Your task to perform on an android device: Open Google Chrome and open the bookmarks view Image 0: 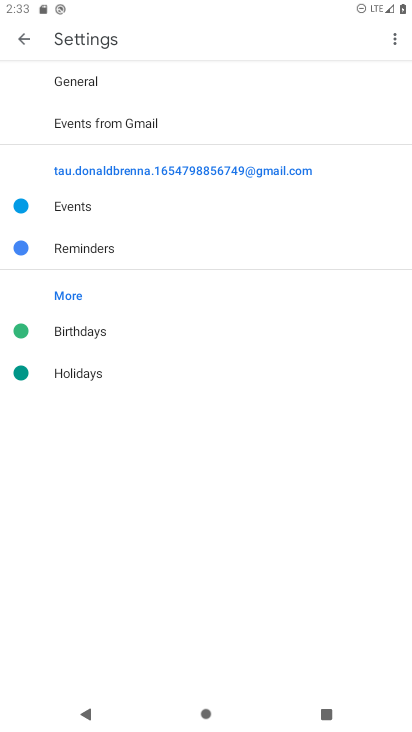
Step 0: drag from (237, 684) to (236, 229)
Your task to perform on an android device: Open Google Chrome and open the bookmarks view Image 1: 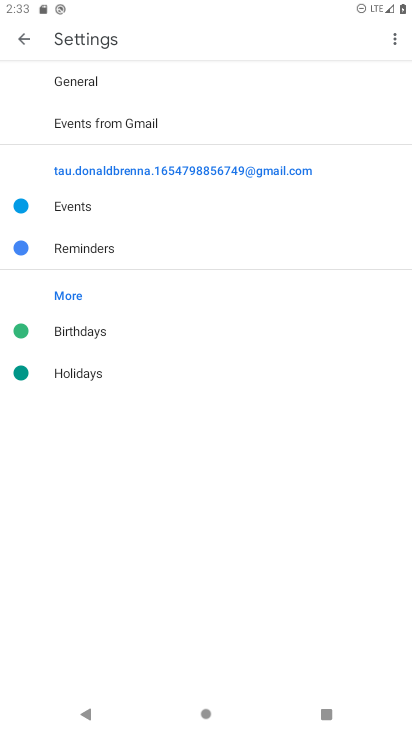
Step 1: press home button
Your task to perform on an android device: Open Google Chrome and open the bookmarks view Image 2: 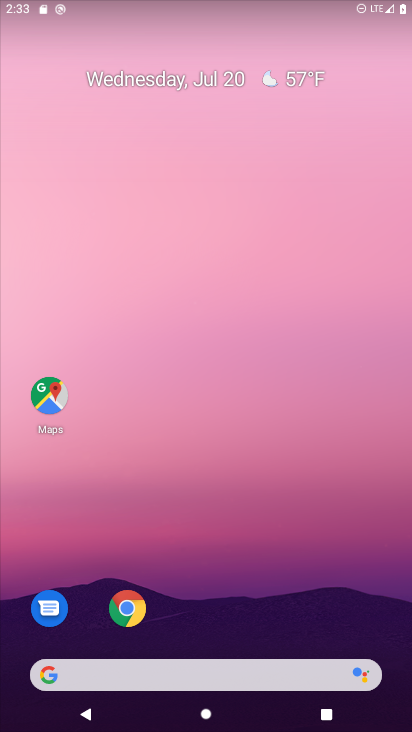
Step 2: click (130, 608)
Your task to perform on an android device: Open Google Chrome and open the bookmarks view Image 3: 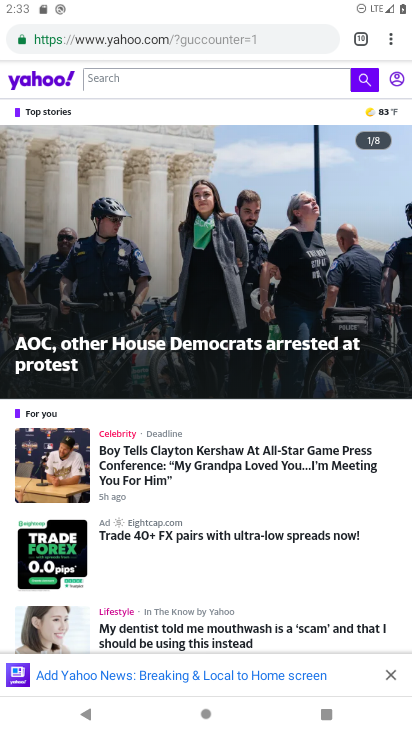
Step 3: click (392, 41)
Your task to perform on an android device: Open Google Chrome and open the bookmarks view Image 4: 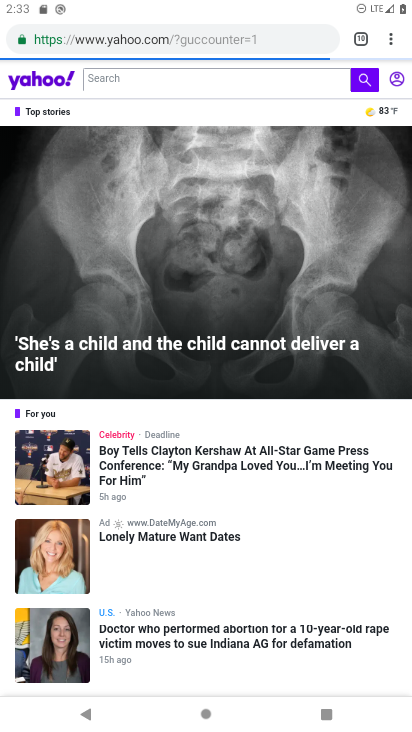
Step 4: click (392, 41)
Your task to perform on an android device: Open Google Chrome and open the bookmarks view Image 5: 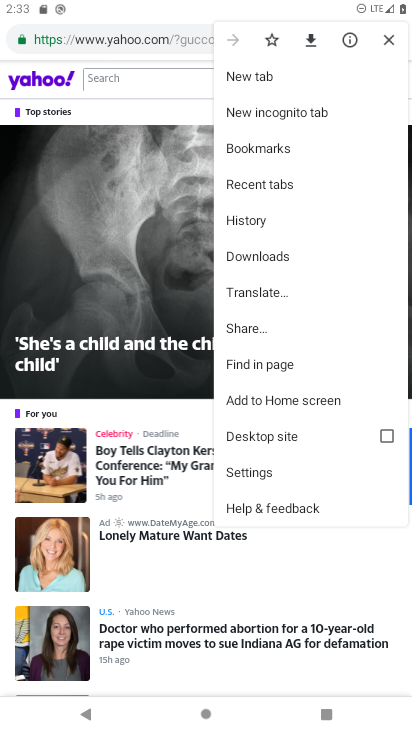
Step 5: click (273, 147)
Your task to perform on an android device: Open Google Chrome and open the bookmarks view Image 6: 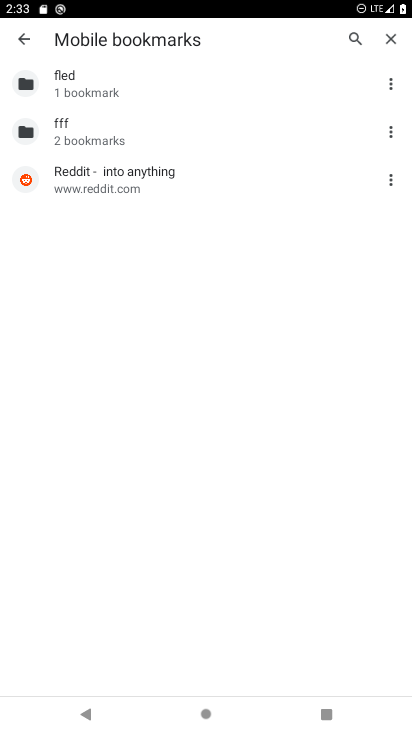
Step 6: task complete